Your task to perform on an android device: toggle pop-ups in chrome Image 0: 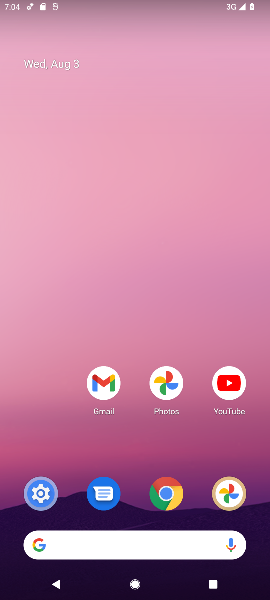
Step 0: click (168, 501)
Your task to perform on an android device: toggle pop-ups in chrome Image 1: 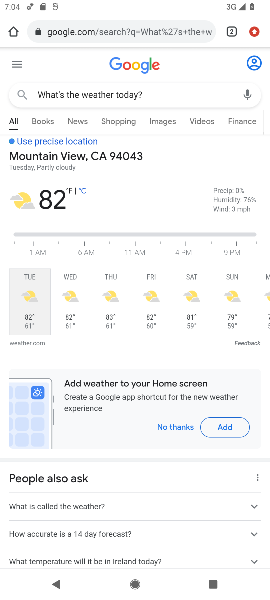
Step 1: click (263, 30)
Your task to perform on an android device: toggle pop-ups in chrome Image 2: 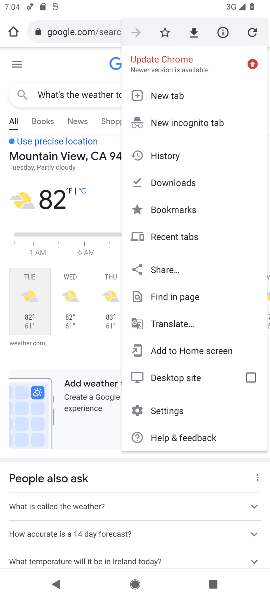
Step 2: click (174, 412)
Your task to perform on an android device: toggle pop-ups in chrome Image 3: 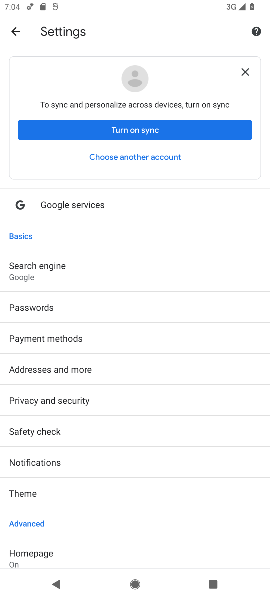
Step 3: drag from (94, 525) to (151, 209)
Your task to perform on an android device: toggle pop-ups in chrome Image 4: 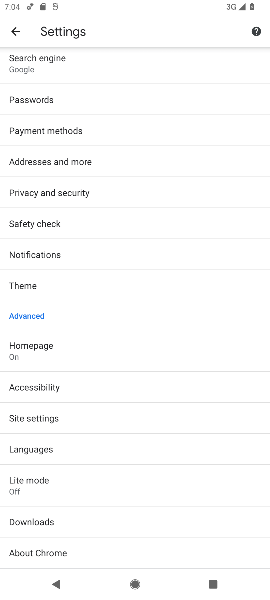
Step 4: click (79, 412)
Your task to perform on an android device: toggle pop-ups in chrome Image 5: 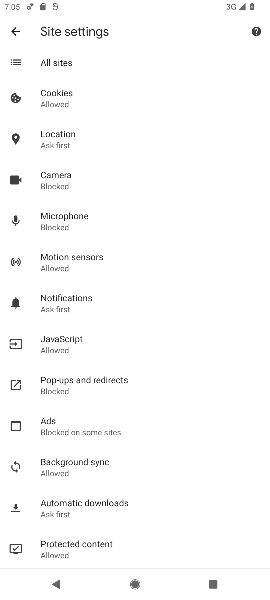
Step 5: click (61, 381)
Your task to perform on an android device: toggle pop-ups in chrome Image 6: 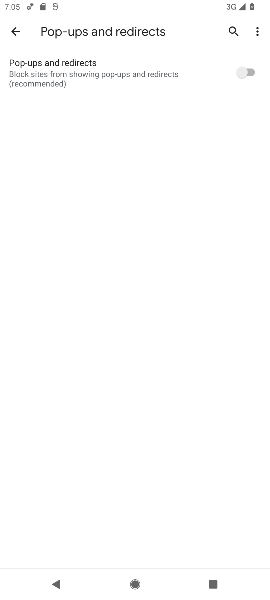
Step 6: click (257, 71)
Your task to perform on an android device: toggle pop-ups in chrome Image 7: 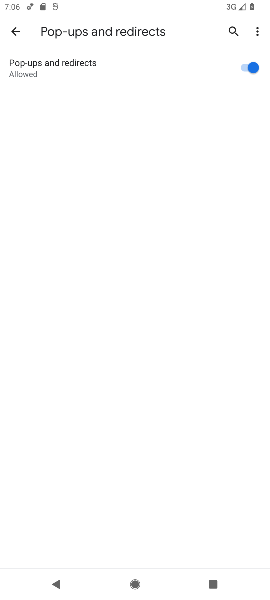
Step 7: task complete